Your task to perform on an android device: change keyboard looks Image 0: 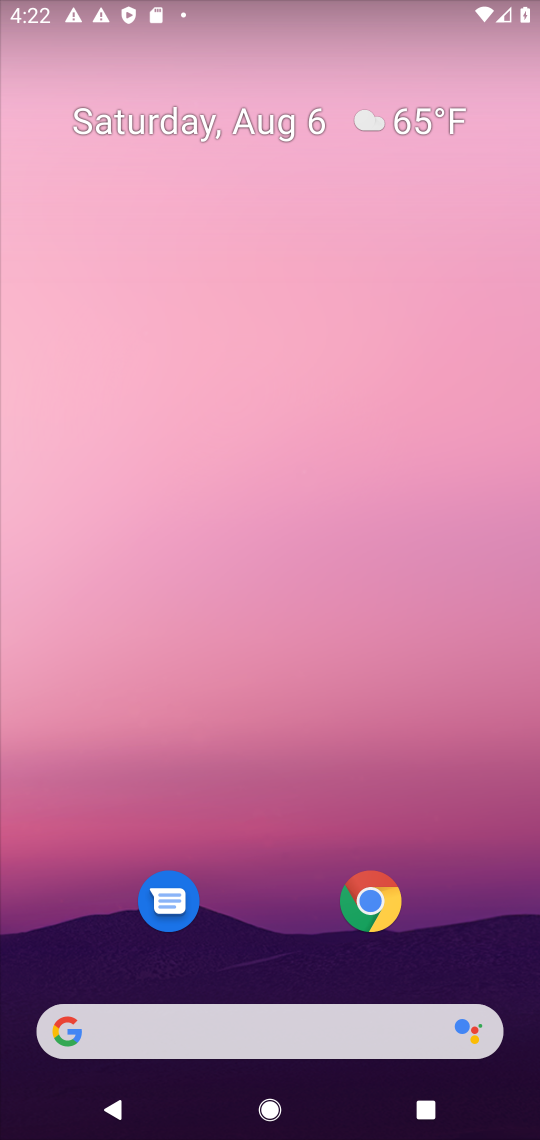
Step 0: press home button
Your task to perform on an android device: change keyboard looks Image 1: 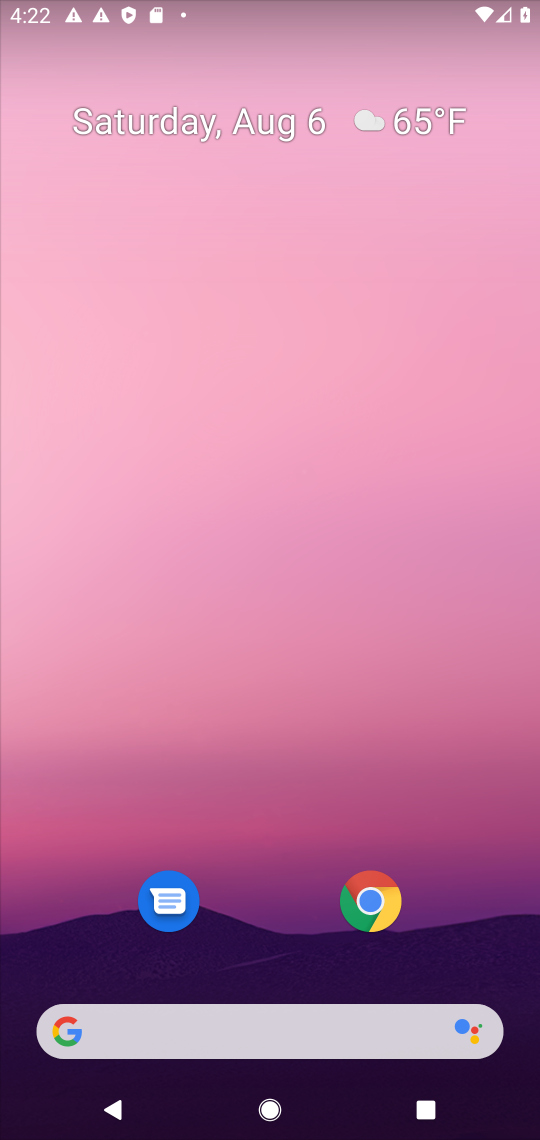
Step 1: drag from (314, 773) to (408, 202)
Your task to perform on an android device: change keyboard looks Image 2: 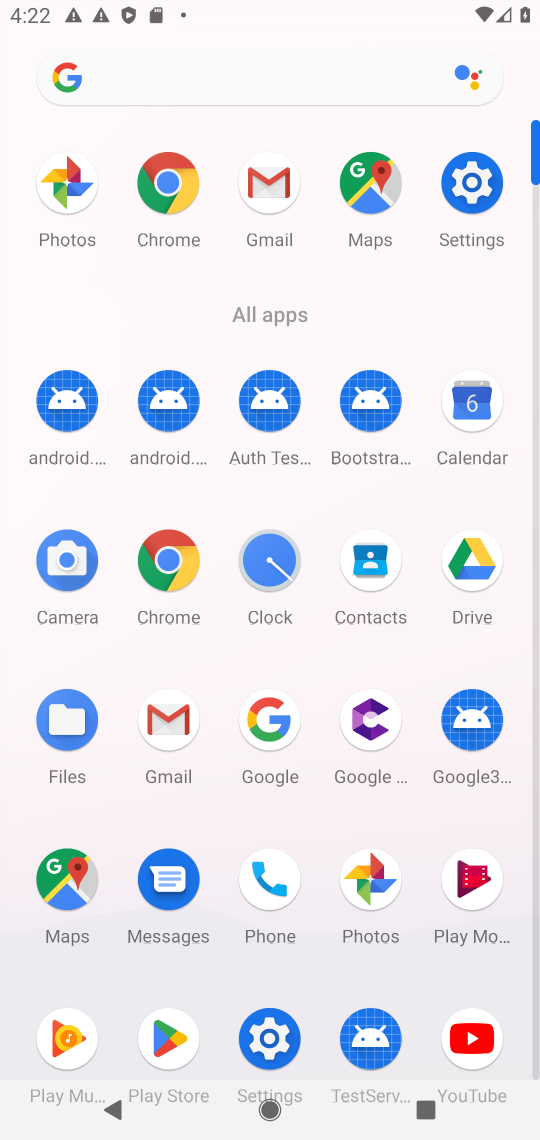
Step 2: click (480, 194)
Your task to perform on an android device: change keyboard looks Image 3: 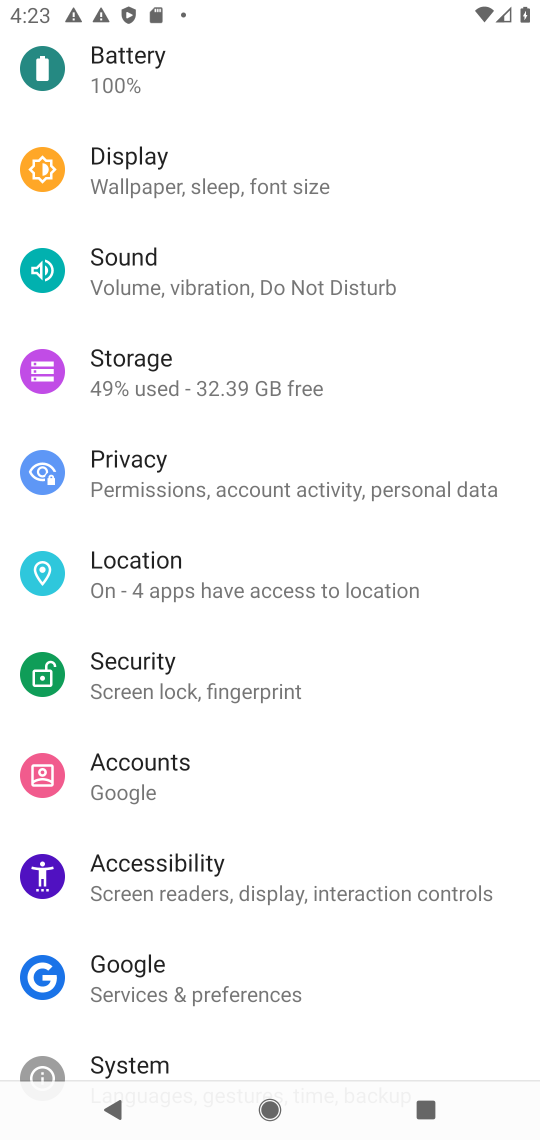
Step 3: click (141, 1055)
Your task to perform on an android device: change keyboard looks Image 4: 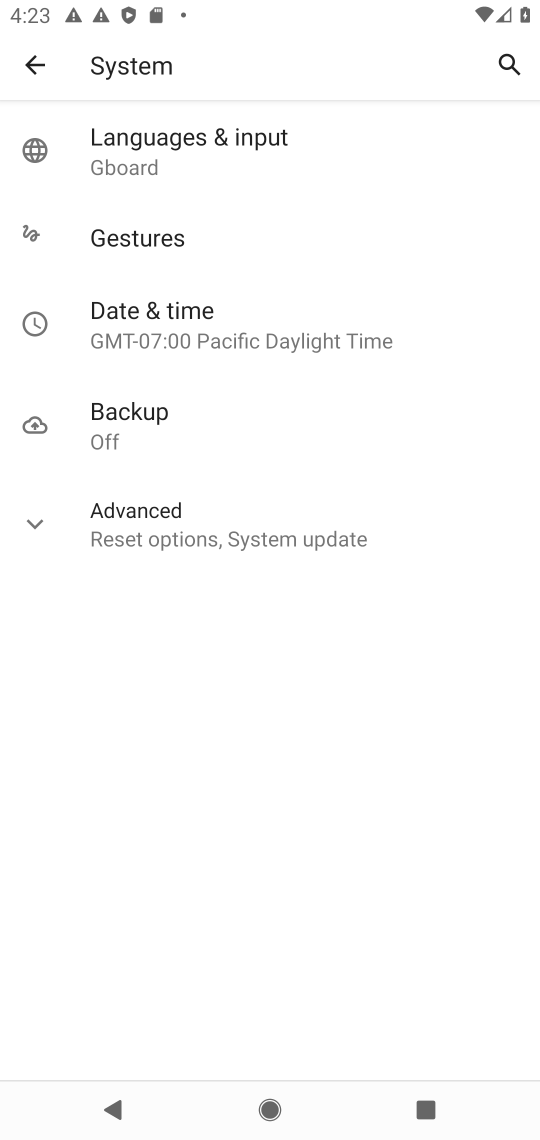
Step 4: click (160, 152)
Your task to perform on an android device: change keyboard looks Image 5: 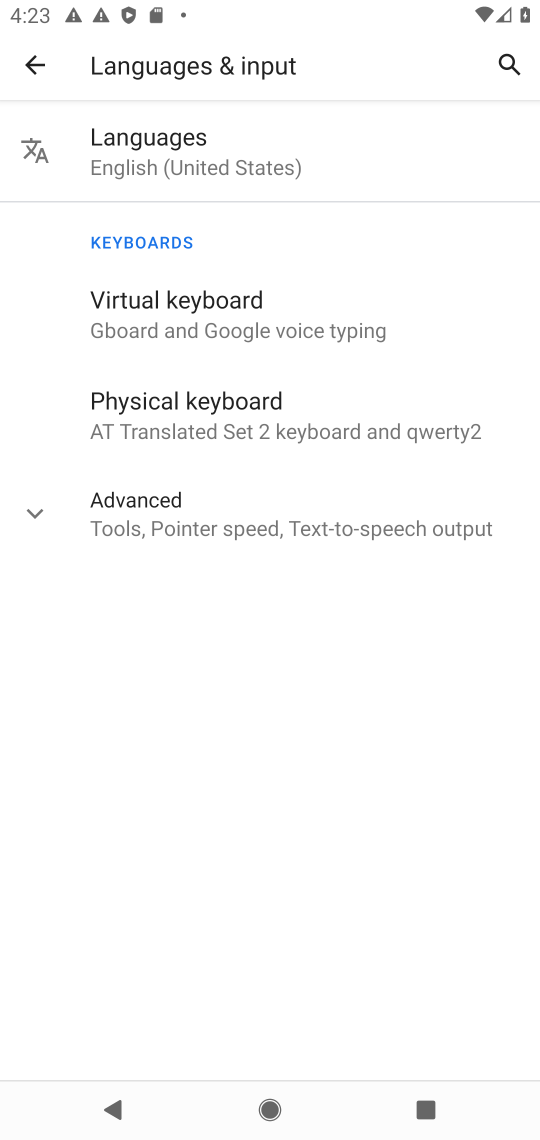
Step 5: click (170, 299)
Your task to perform on an android device: change keyboard looks Image 6: 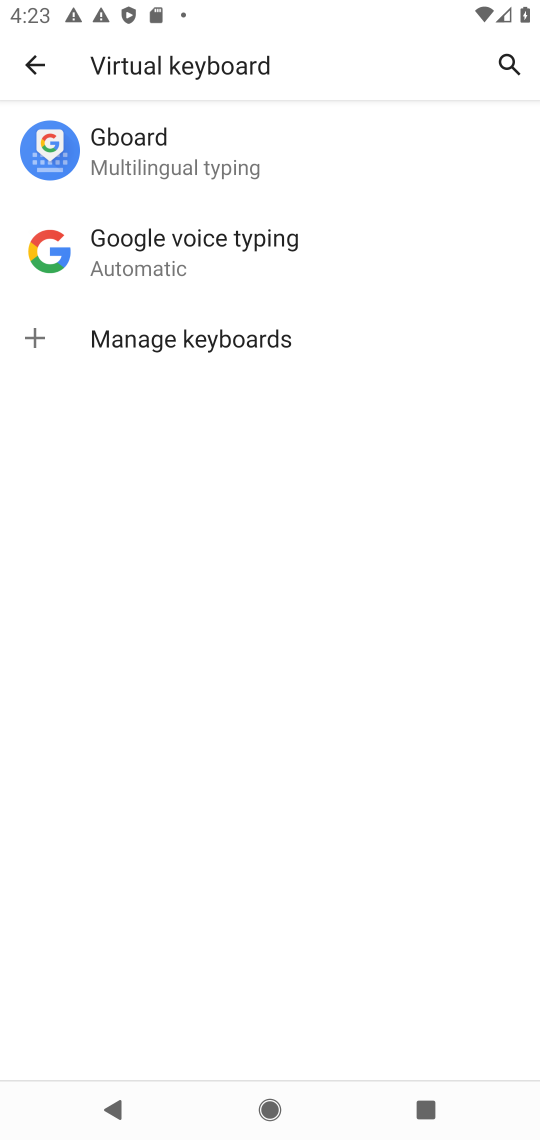
Step 6: click (112, 159)
Your task to perform on an android device: change keyboard looks Image 7: 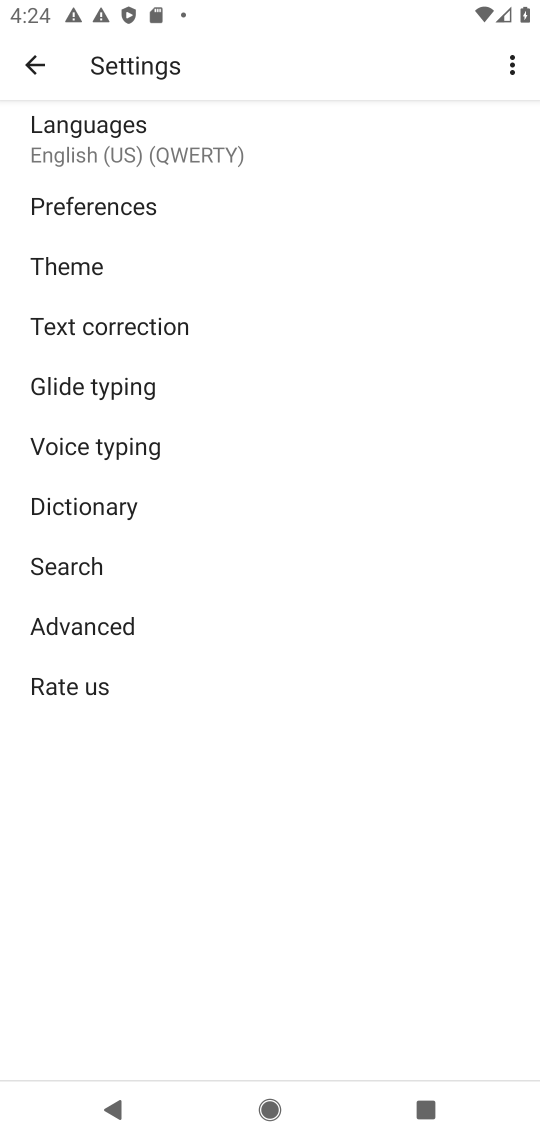
Step 7: click (128, 116)
Your task to perform on an android device: change keyboard looks Image 8: 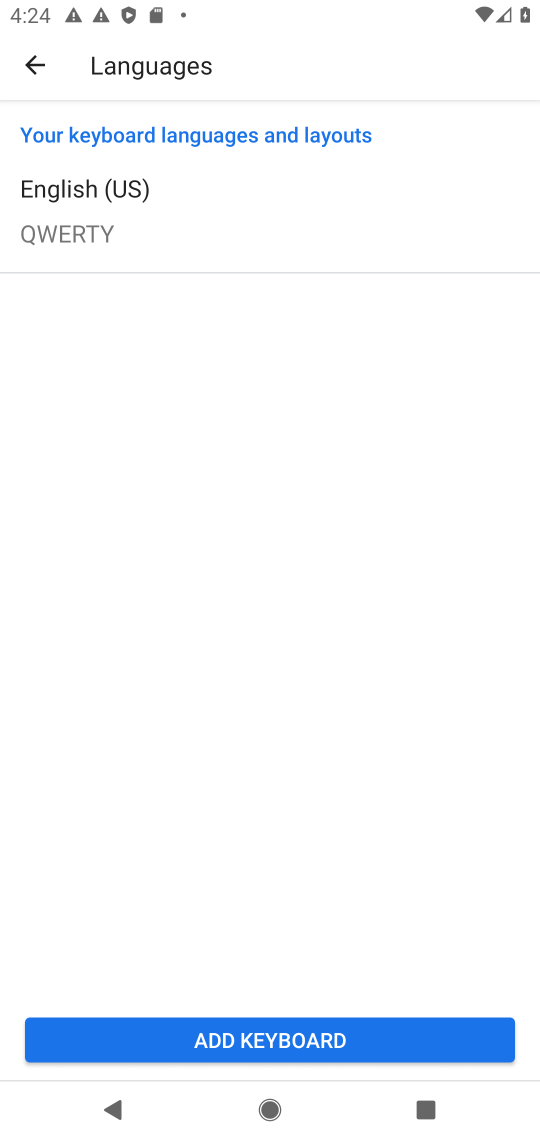
Step 8: click (31, 75)
Your task to perform on an android device: change keyboard looks Image 9: 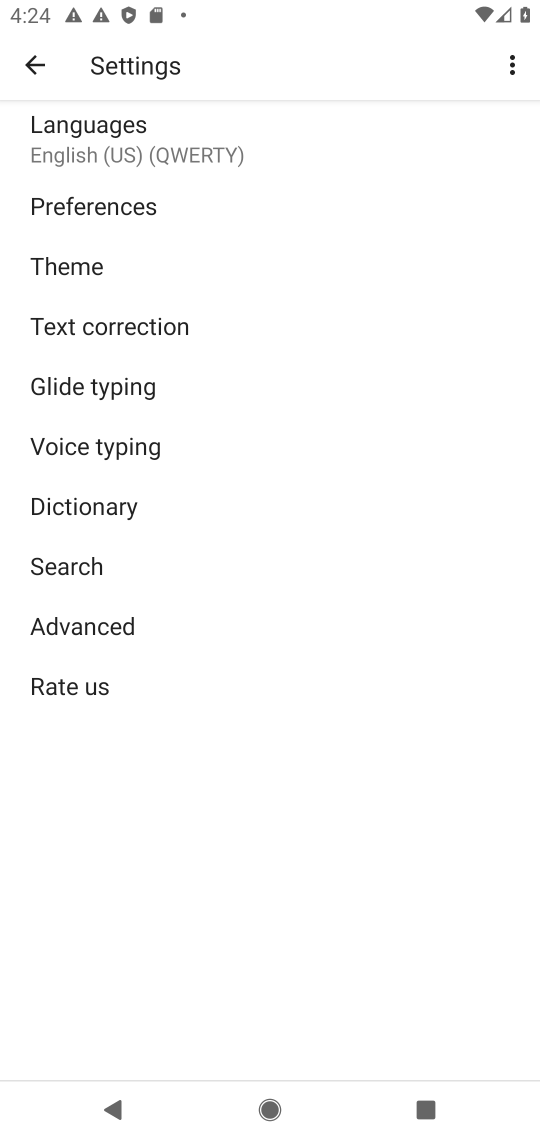
Step 9: click (80, 258)
Your task to perform on an android device: change keyboard looks Image 10: 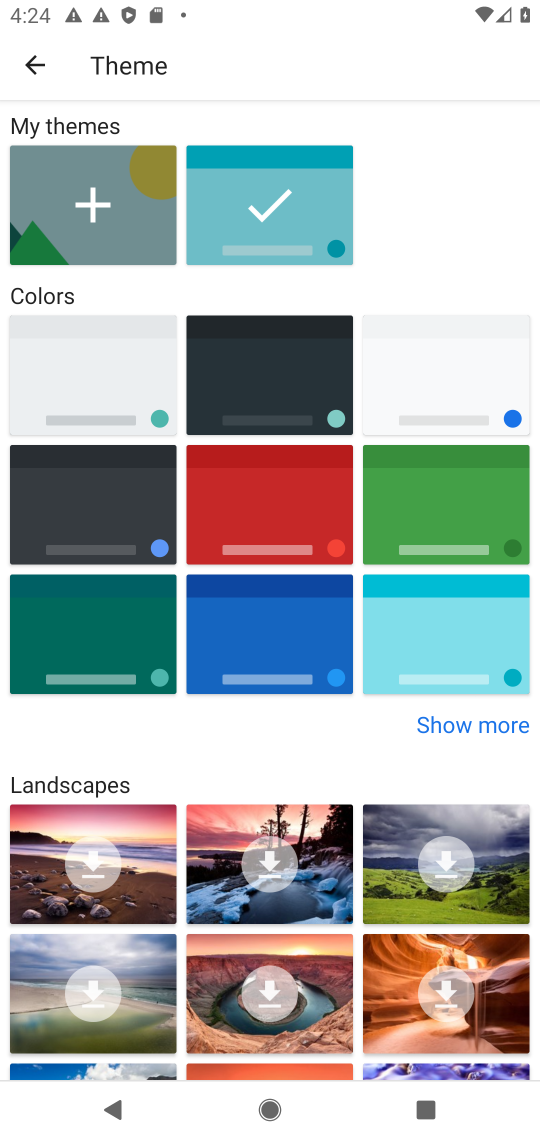
Step 10: click (301, 625)
Your task to perform on an android device: change keyboard looks Image 11: 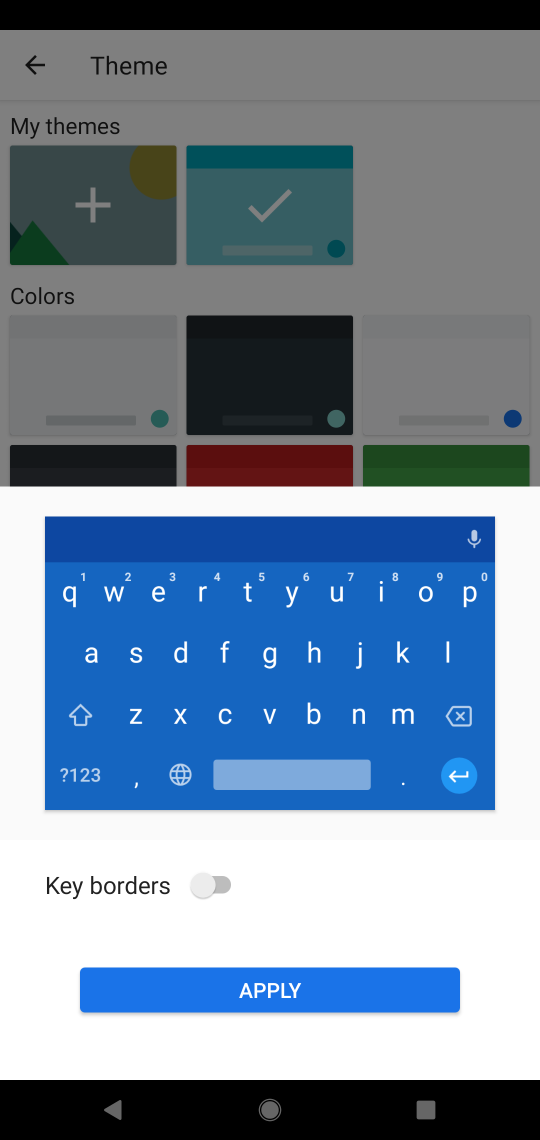
Step 11: task complete